Your task to perform on an android device: Open calendar and show me the fourth week of next month Image 0: 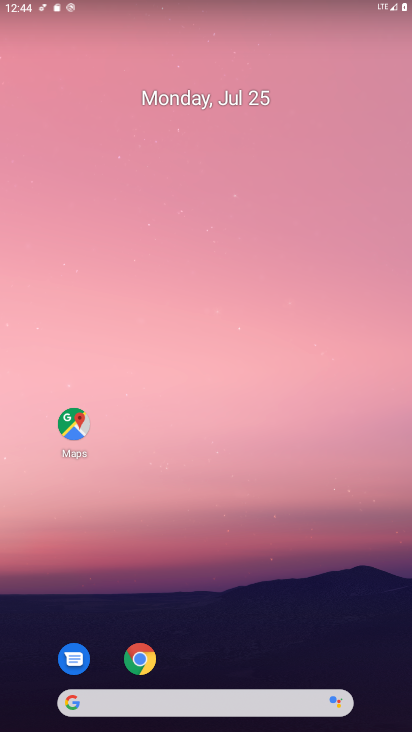
Step 0: press home button
Your task to perform on an android device: Open calendar and show me the fourth week of next month Image 1: 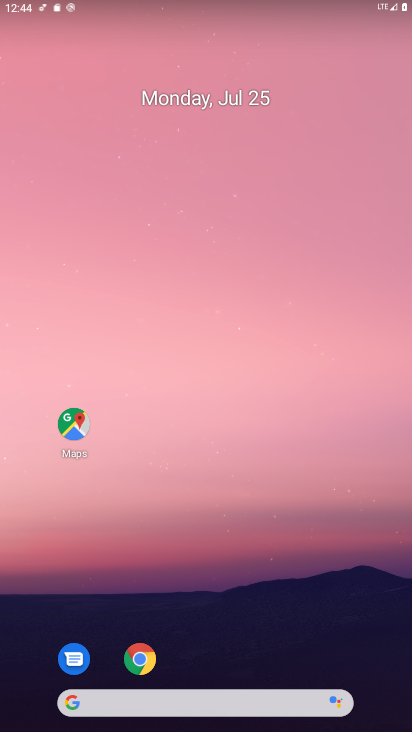
Step 1: drag from (210, 677) to (217, 6)
Your task to perform on an android device: Open calendar and show me the fourth week of next month Image 2: 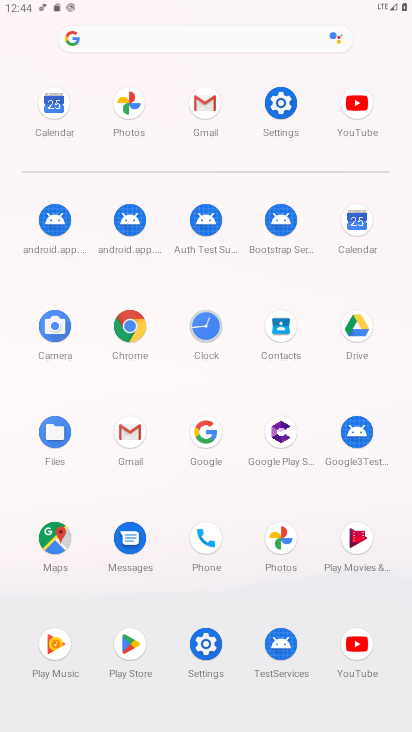
Step 2: click (357, 217)
Your task to perform on an android device: Open calendar and show me the fourth week of next month Image 3: 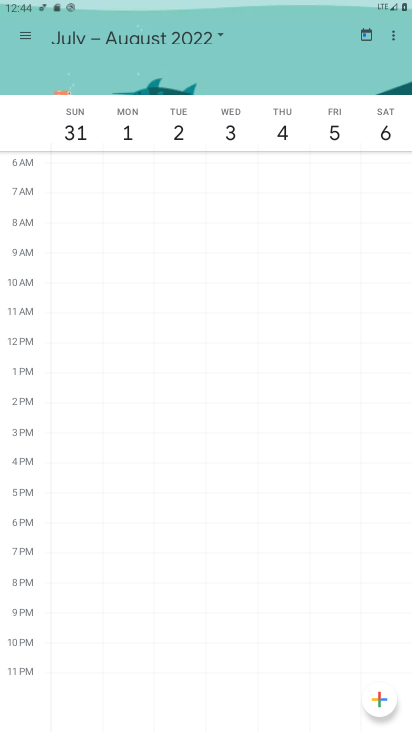
Step 3: click (388, 135)
Your task to perform on an android device: Open calendar and show me the fourth week of next month Image 4: 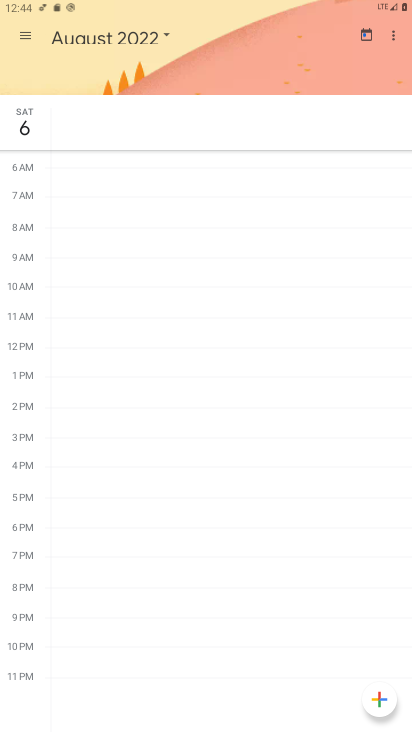
Step 4: click (31, 133)
Your task to perform on an android device: Open calendar and show me the fourth week of next month Image 5: 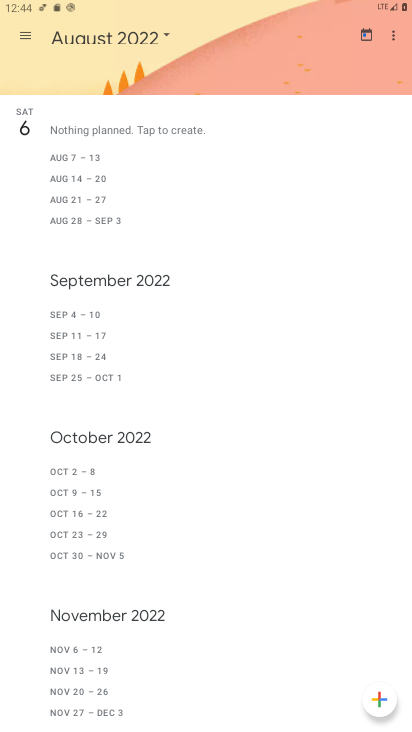
Step 5: click (157, 31)
Your task to perform on an android device: Open calendar and show me the fourth week of next month Image 6: 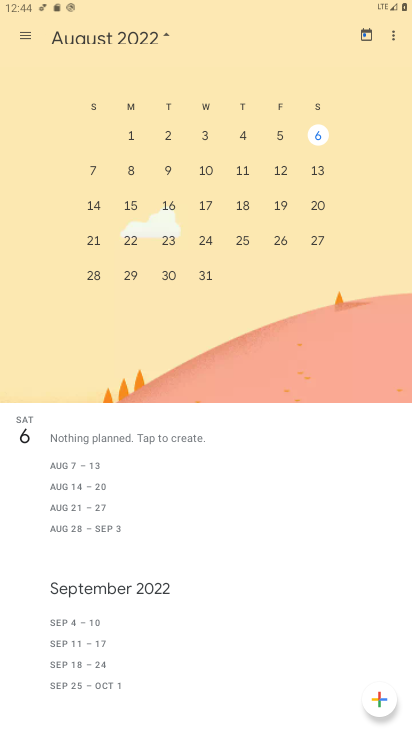
Step 6: click (97, 230)
Your task to perform on an android device: Open calendar and show me the fourth week of next month Image 7: 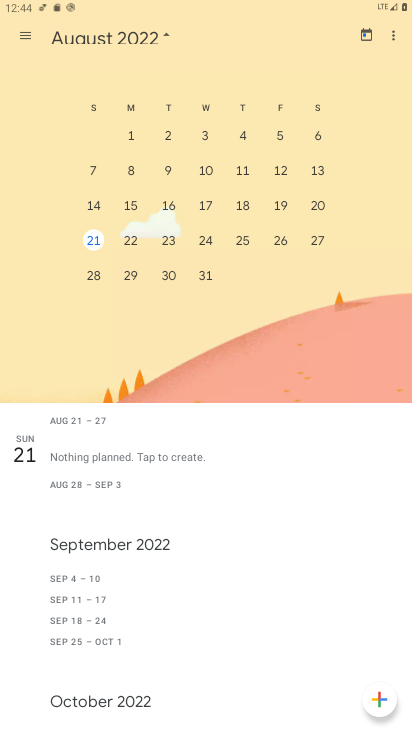
Step 7: click (161, 38)
Your task to perform on an android device: Open calendar and show me the fourth week of next month Image 8: 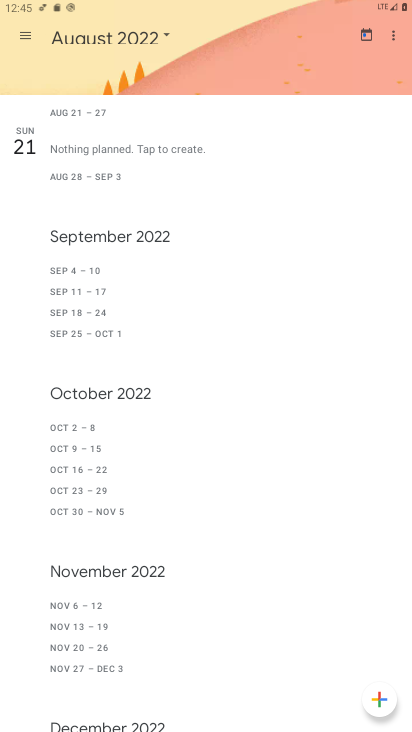
Step 8: task complete